Your task to perform on an android device: Go to settings Image 0: 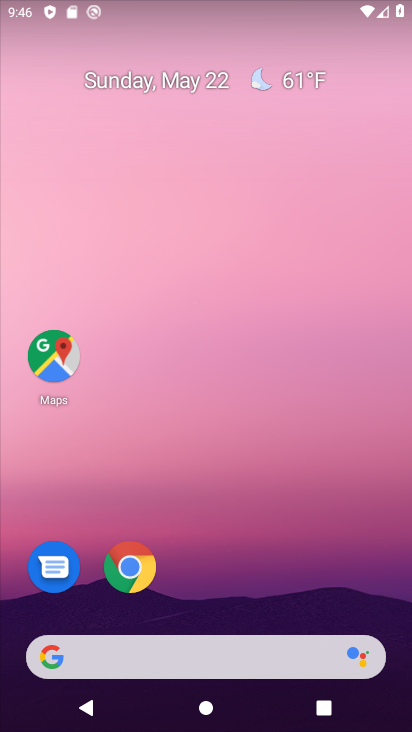
Step 0: drag from (201, 626) to (99, 30)
Your task to perform on an android device: Go to settings Image 1: 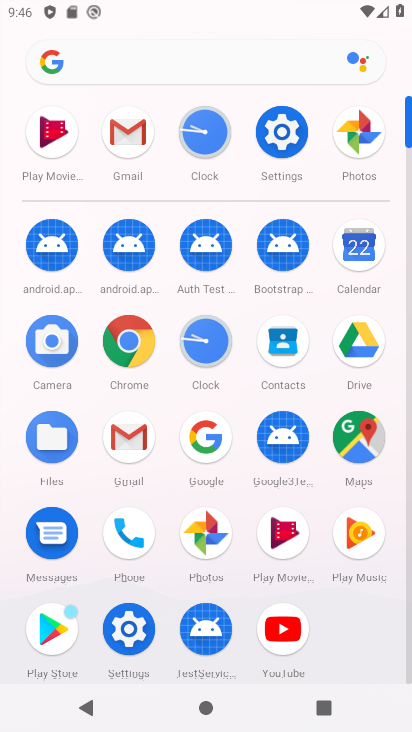
Step 1: click (282, 137)
Your task to perform on an android device: Go to settings Image 2: 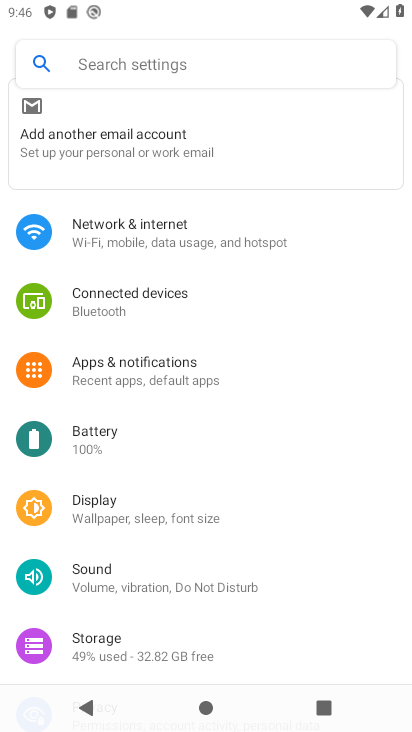
Step 2: task complete